Your task to perform on an android device: toggle javascript in the chrome app Image 0: 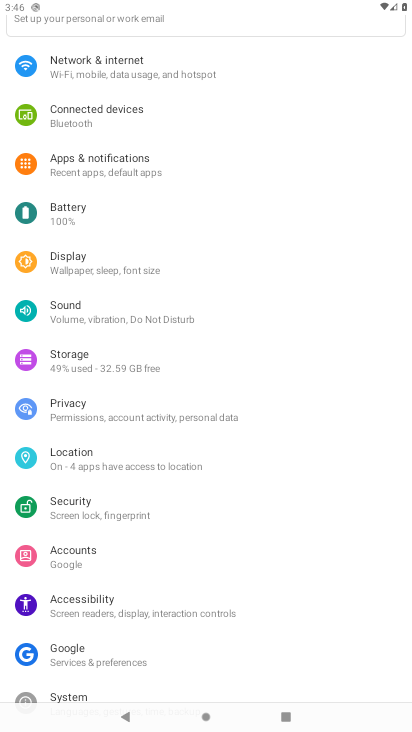
Step 0: press home button
Your task to perform on an android device: toggle javascript in the chrome app Image 1: 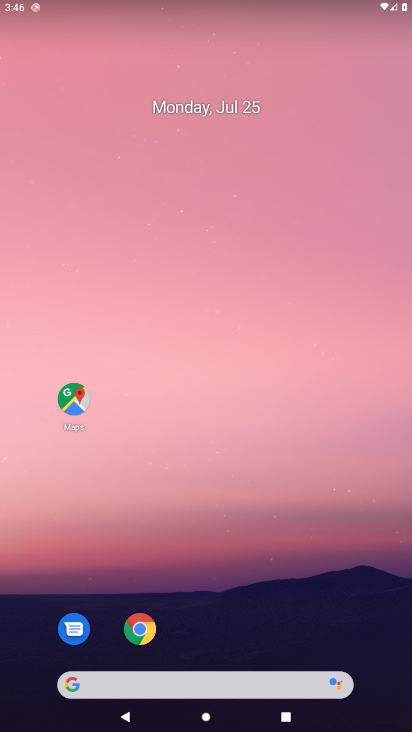
Step 1: click (130, 623)
Your task to perform on an android device: toggle javascript in the chrome app Image 2: 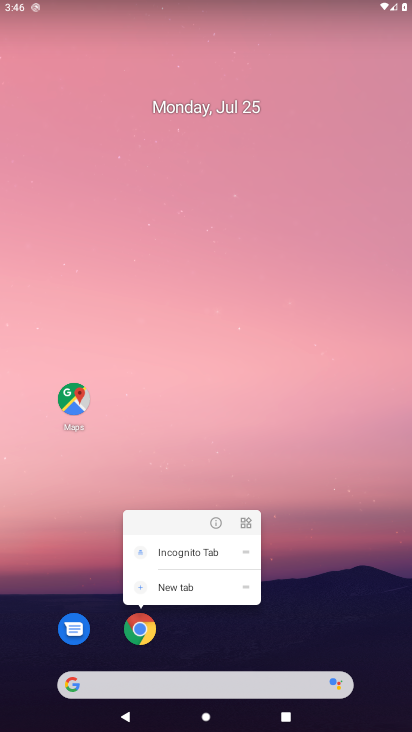
Step 2: click (130, 624)
Your task to perform on an android device: toggle javascript in the chrome app Image 3: 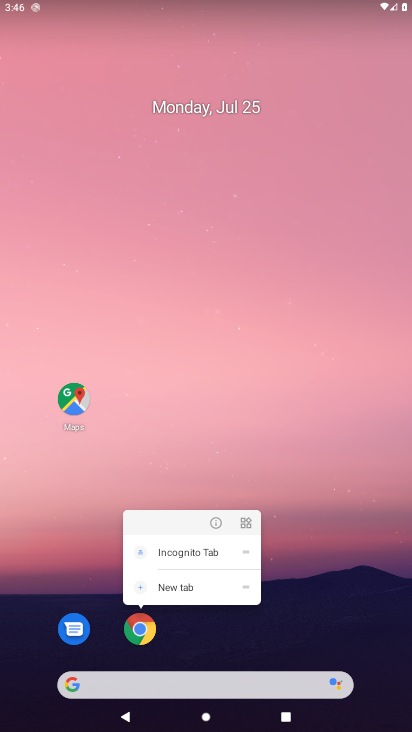
Step 3: click (114, 634)
Your task to perform on an android device: toggle javascript in the chrome app Image 4: 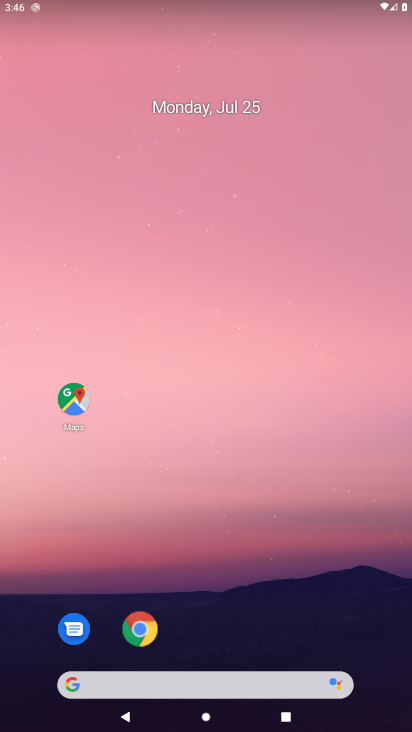
Step 4: click (127, 635)
Your task to perform on an android device: toggle javascript in the chrome app Image 5: 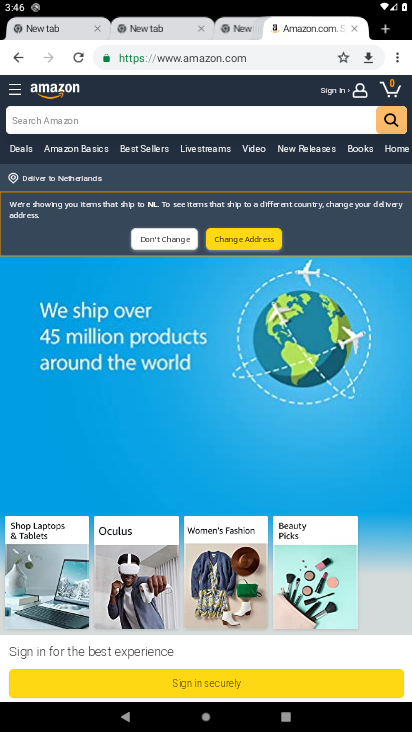
Step 5: click (397, 55)
Your task to perform on an android device: toggle javascript in the chrome app Image 6: 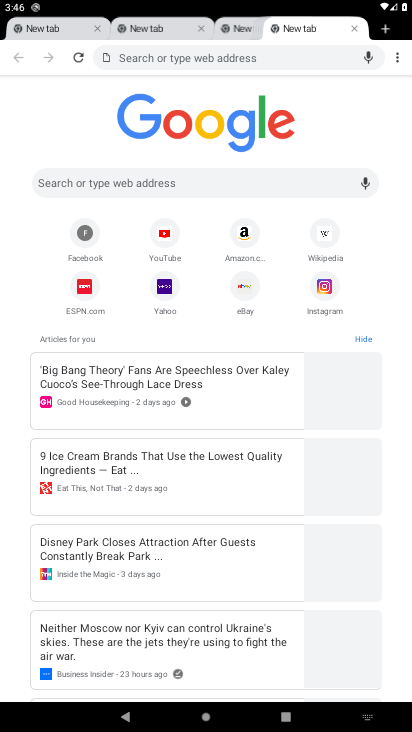
Step 6: click (396, 57)
Your task to perform on an android device: toggle javascript in the chrome app Image 7: 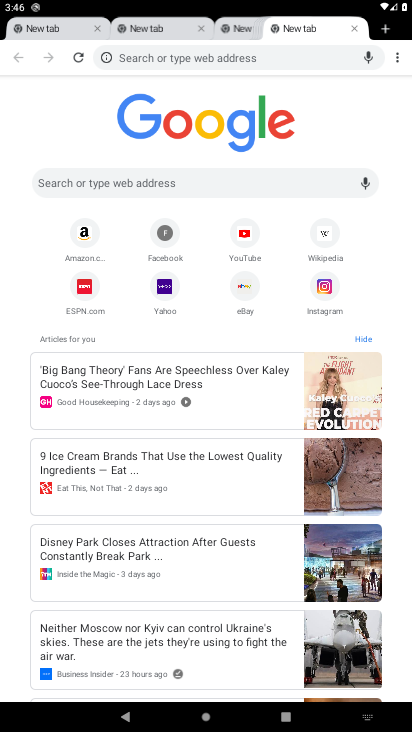
Step 7: click (396, 57)
Your task to perform on an android device: toggle javascript in the chrome app Image 8: 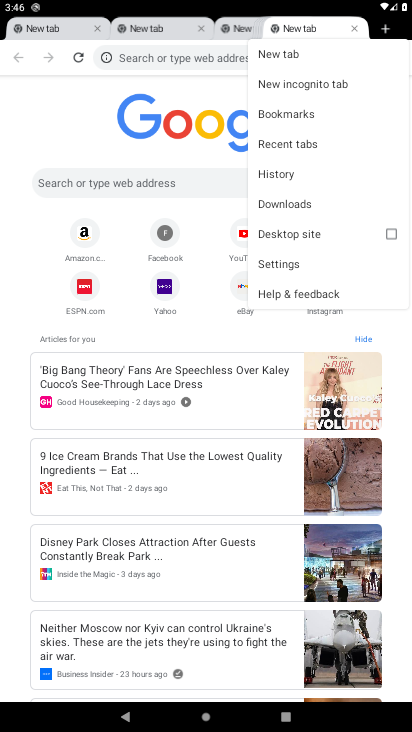
Step 8: click (274, 270)
Your task to perform on an android device: toggle javascript in the chrome app Image 9: 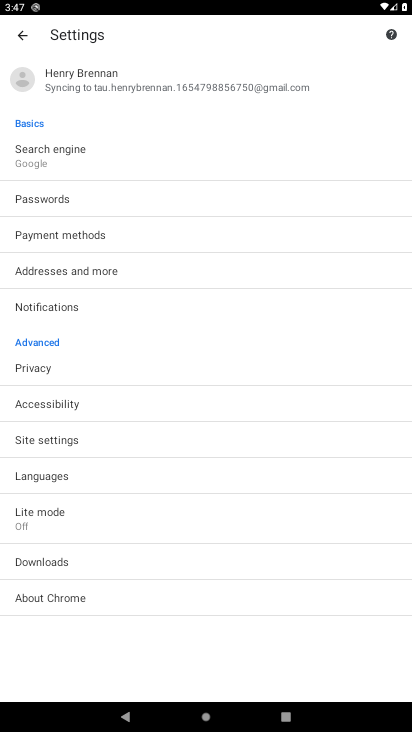
Step 9: click (40, 437)
Your task to perform on an android device: toggle javascript in the chrome app Image 10: 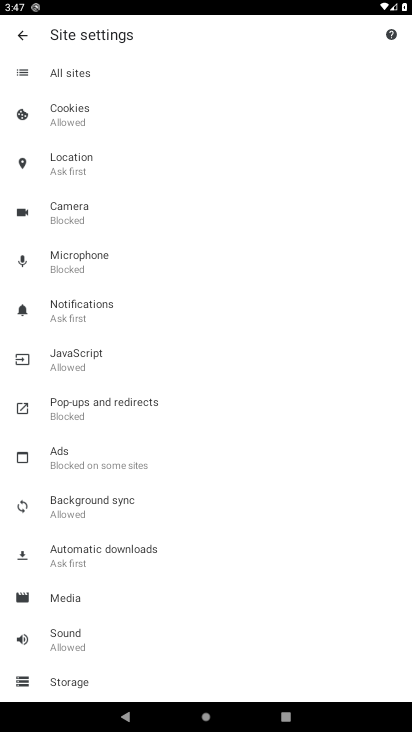
Step 10: click (79, 353)
Your task to perform on an android device: toggle javascript in the chrome app Image 11: 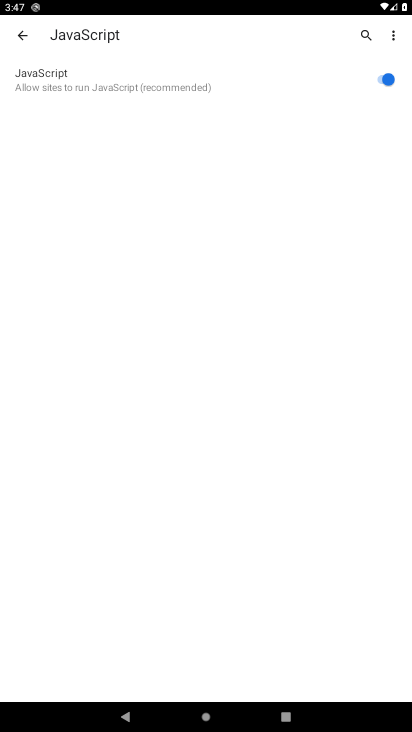
Step 11: task complete